Your task to perform on an android device: turn on location history Image 0: 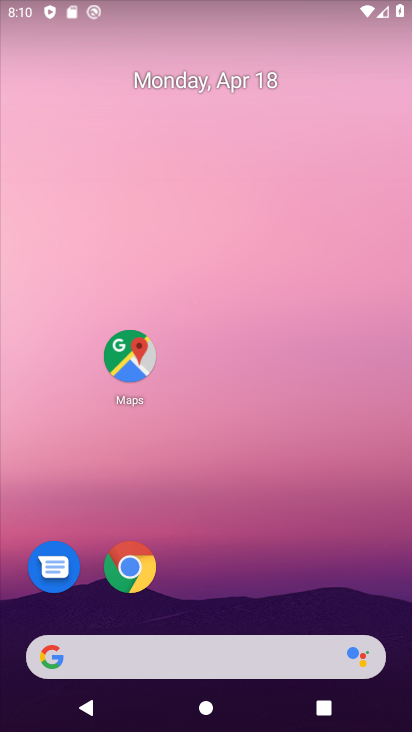
Step 0: click (220, 400)
Your task to perform on an android device: turn on location history Image 1: 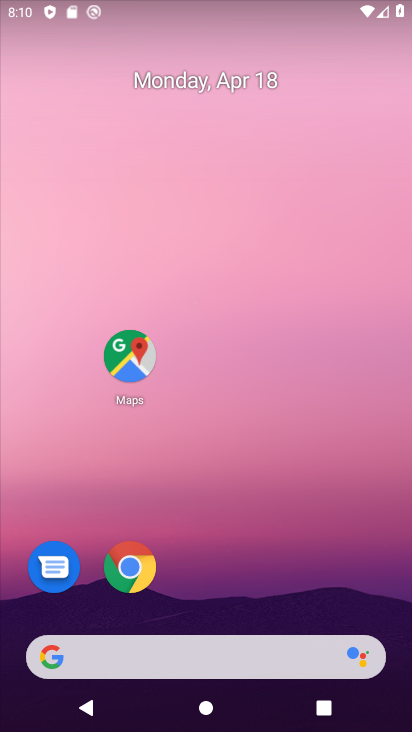
Step 1: drag from (211, 668) to (384, 135)
Your task to perform on an android device: turn on location history Image 2: 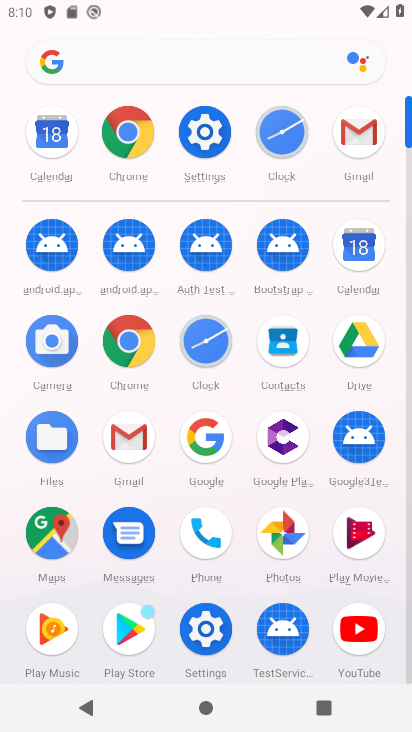
Step 2: click (204, 640)
Your task to perform on an android device: turn on location history Image 3: 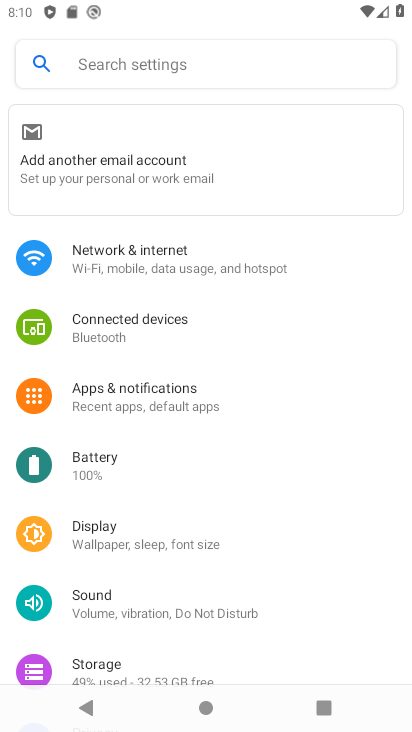
Step 3: click (156, 59)
Your task to perform on an android device: turn on location history Image 4: 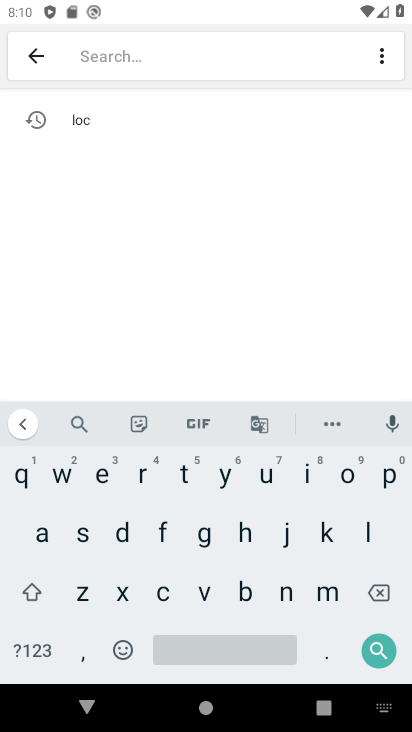
Step 4: click (378, 531)
Your task to perform on an android device: turn on location history Image 5: 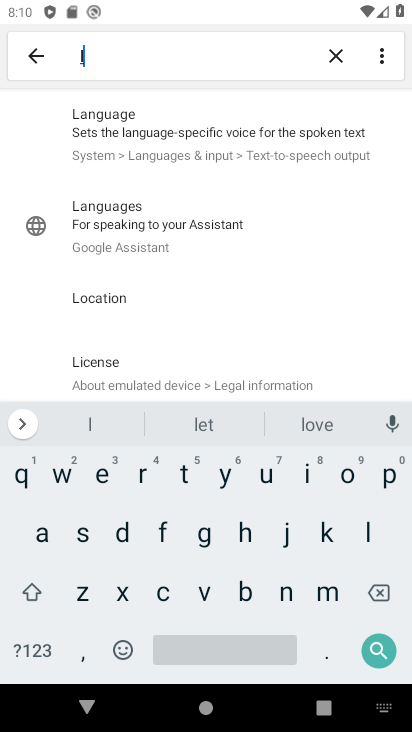
Step 5: click (346, 480)
Your task to perform on an android device: turn on location history Image 6: 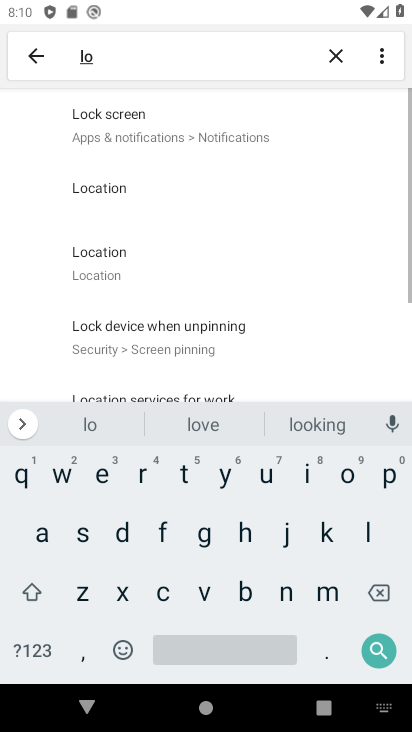
Step 6: click (156, 582)
Your task to perform on an android device: turn on location history Image 7: 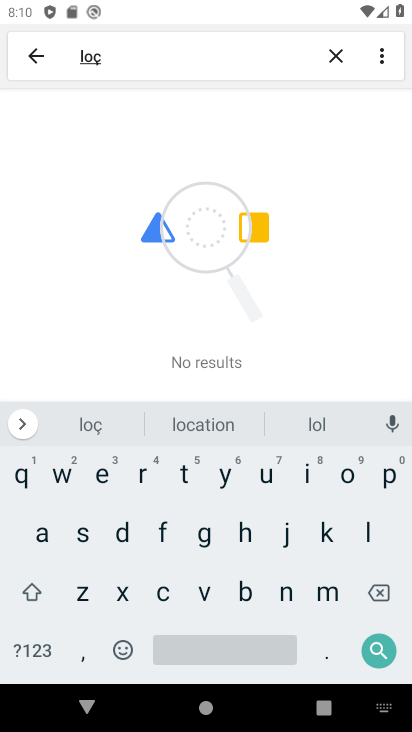
Step 7: click (28, 532)
Your task to perform on an android device: turn on location history Image 8: 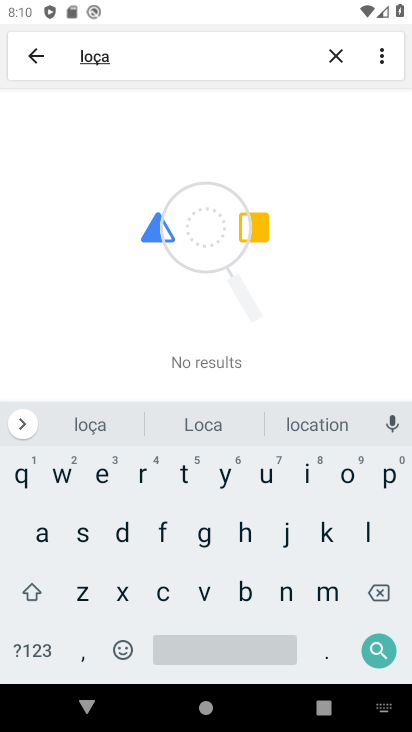
Step 8: click (331, 61)
Your task to perform on an android device: turn on location history Image 9: 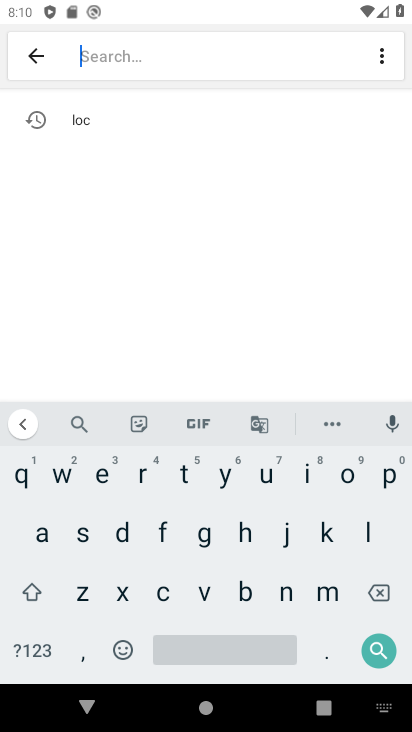
Step 9: click (369, 532)
Your task to perform on an android device: turn on location history Image 10: 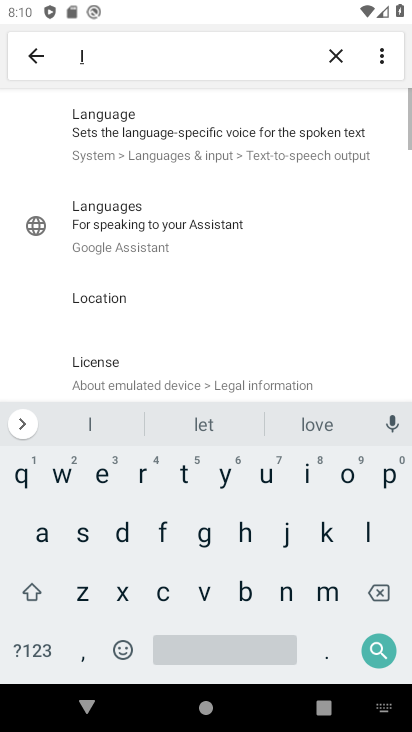
Step 10: click (346, 479)
Your task to perform on an android device: turn on location history Image 11: 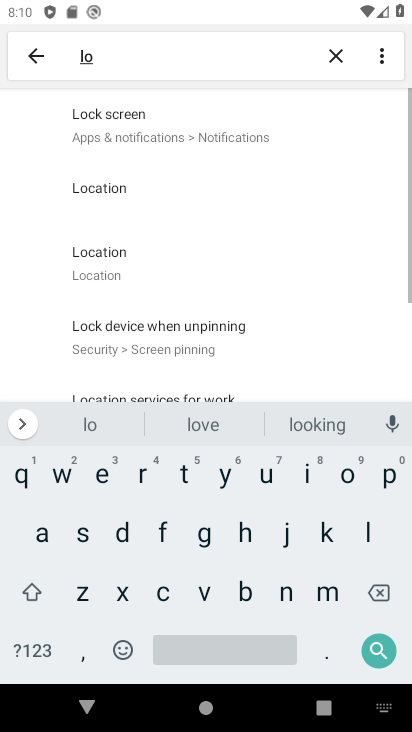
Step 11: click (166, 586)
Your task to perform on an android device: turn on location history Image 12: 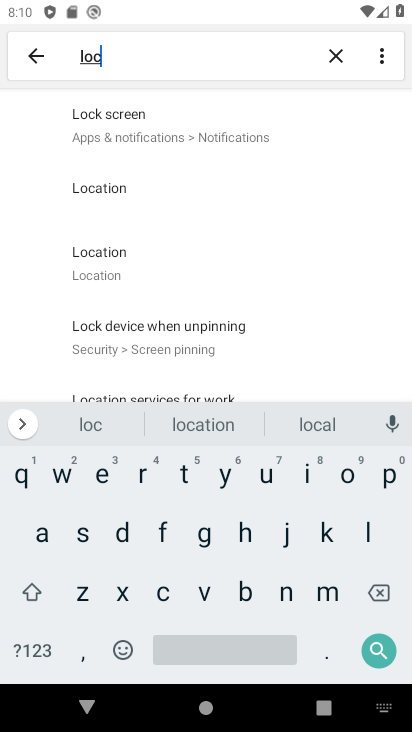
Step 12: click (33, 538)
Your task to perform on an android device: turn on location history Image 13: 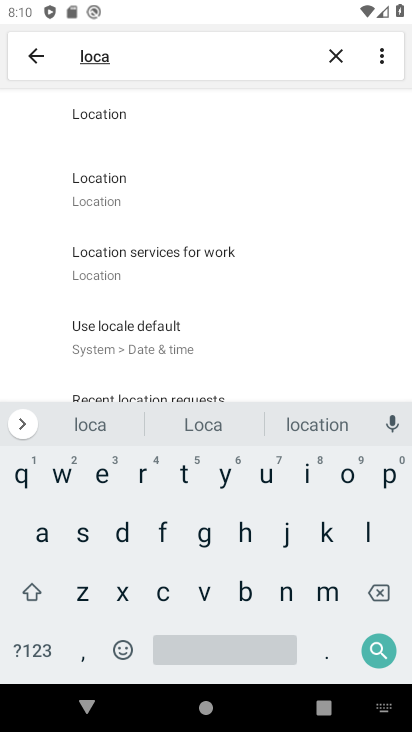
Step 13: click (112, 195)
Your task to perform on an android device: turn on location history Image 14: 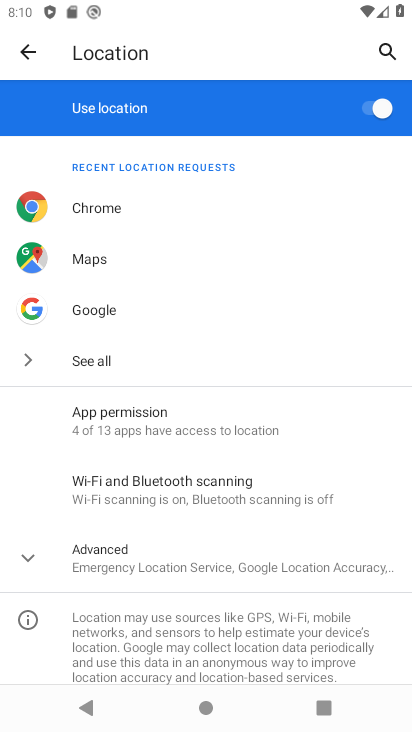
Step 14: click (57, 547)
Your task to perform on an android device: turn on location history Image 15: 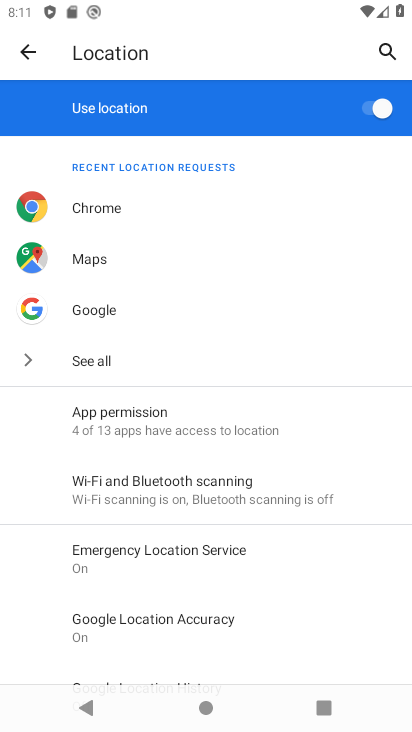
Step 15: click (169, 665)
Your task to perform on an android device: turn on location history Image 16: 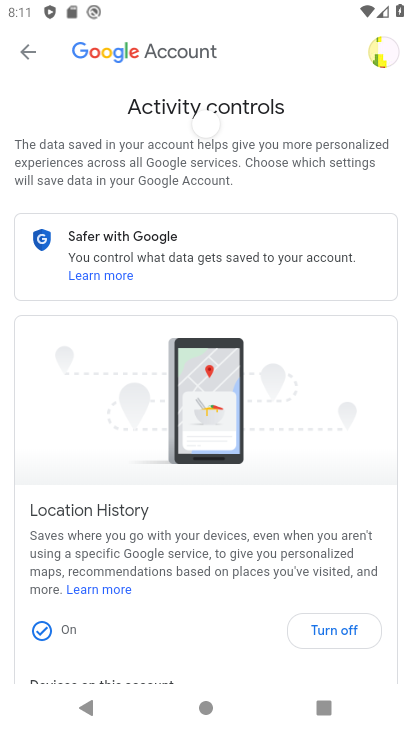
Step 16: task complete